Your task to perform on an android device: change notification settings in the gmail app Image 0: 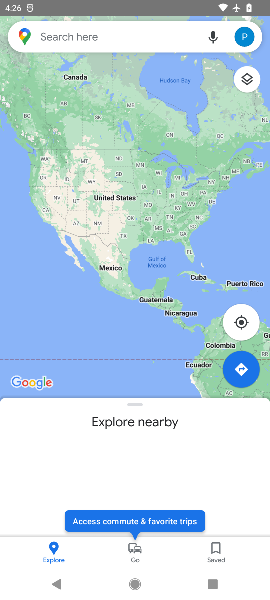
Step 0: press home button
Your task to perform on an android device: change notification settings in the gmail app Image 1: 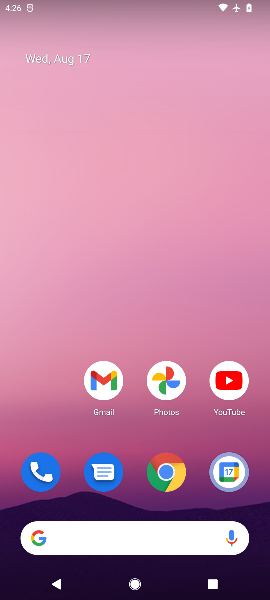
Step 1: click (98, 381)
Your task to perform on an android device: change notification settings in the gmail app Image 2: 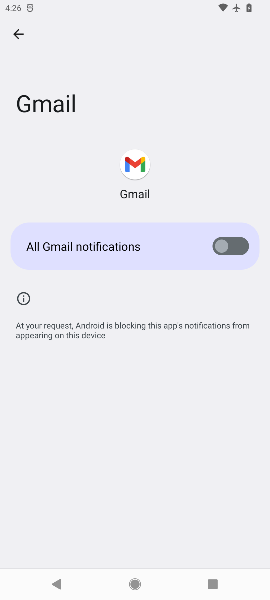
Step 2: click (241, 241)
Your task to perform on an android device: change notification settings in the gmail app Image 3: 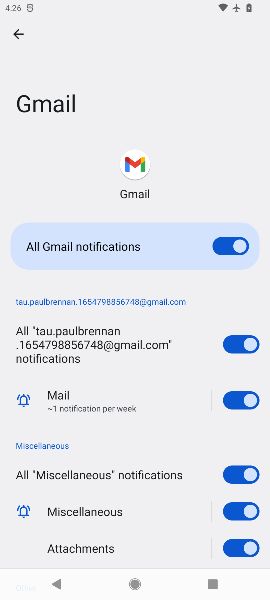
Step 3: task complete